Your task to perform on an android device: Add logitech g502 to the cart on bestbuy, then select checkout. Image 0: 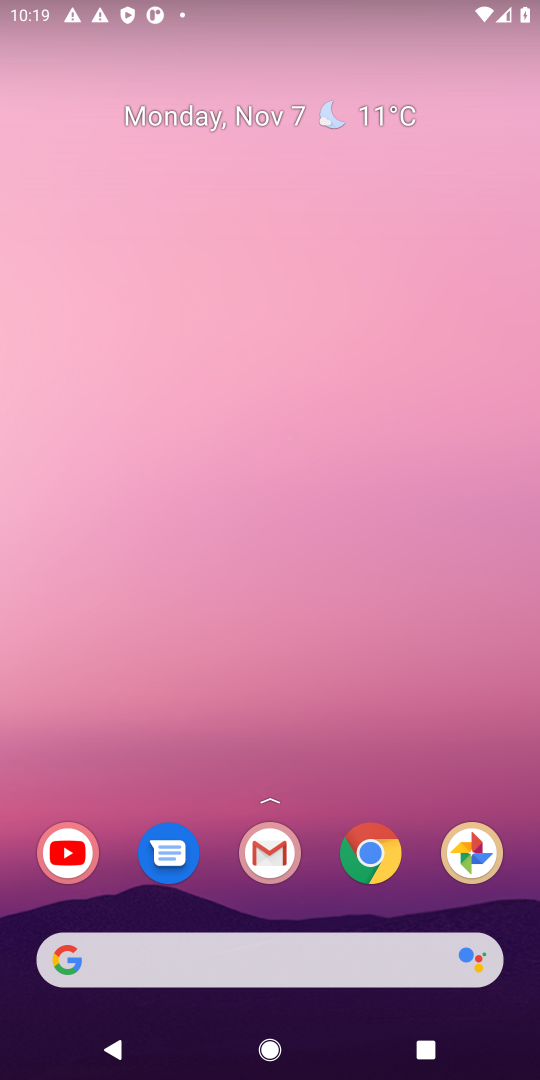
Step 0: click (308, 971)
Your task to perform on an android device: Add logitech g502 to the cart on bestbuy, then select checkout. Image 1: 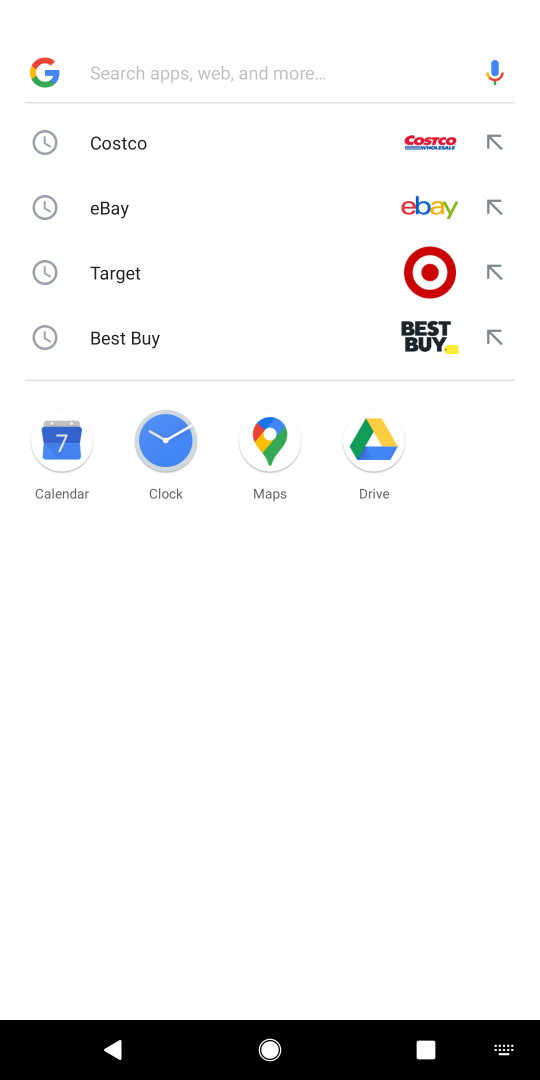
Step 1: click (165, 329)
Your task to perform on an android device: Add logitech g502 to the cart on bestbuy, then select checkout. Image 2: 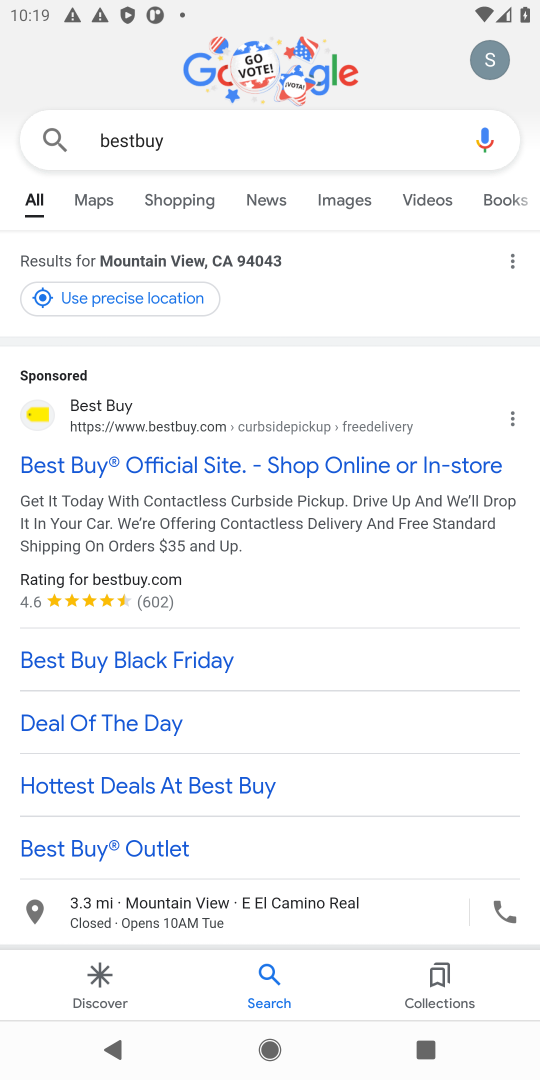
Step 2: click (110, 450)
Your task to perform on an android device: Add logitech g502 to the cart on bestbuy, then select checkout. Image 3: 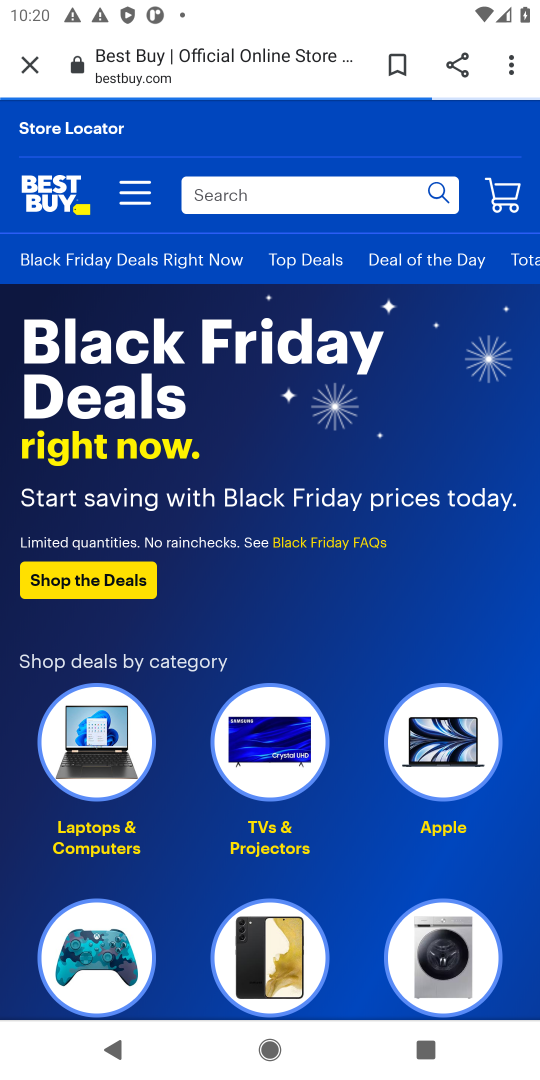
Step 3: click (245, 203)
Your task to perform on an android device: Add logitech g502 to the cart on bestbuy, then select checkout. Image 4: 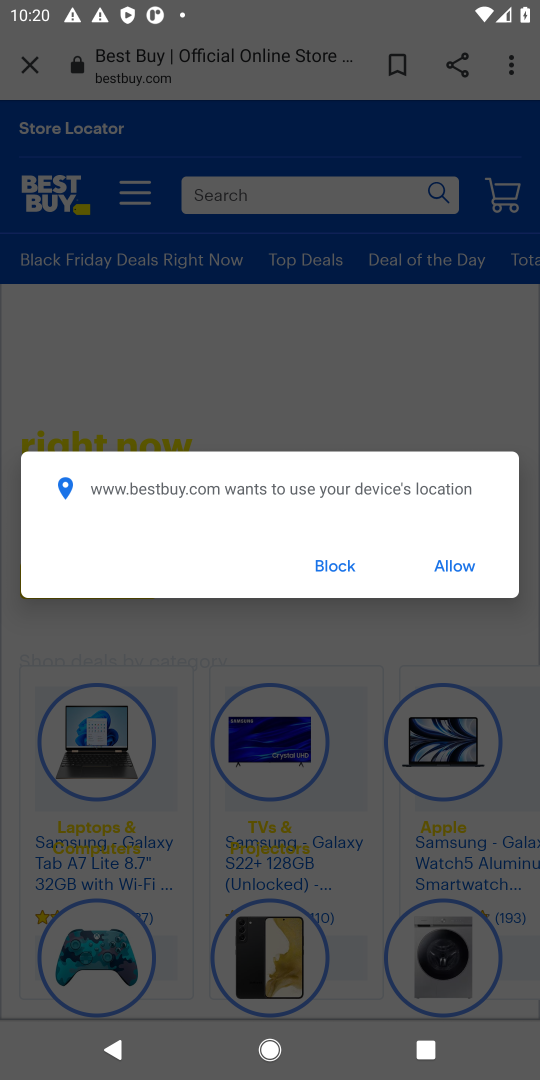
Step 4: type "logitech g502"
Your task to perform on an android device: Add logitech g502 to the cart on bestbuy, then select checkout. Image 5: 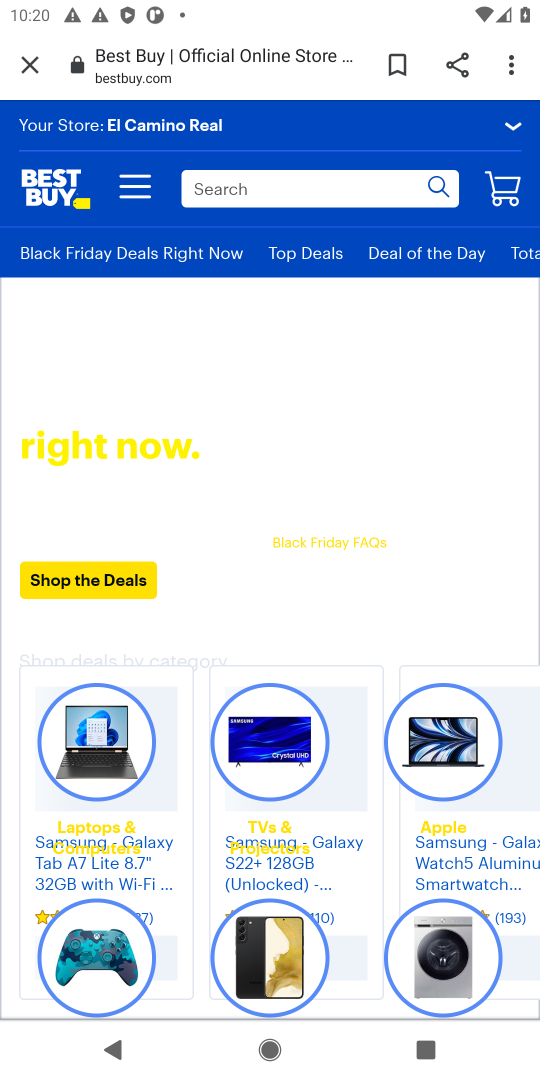
Step 5: click (280, 200)
Your task to perform on an android device: Add logitech g502 to the cart on bestbuy, then select checkout. Image 6: 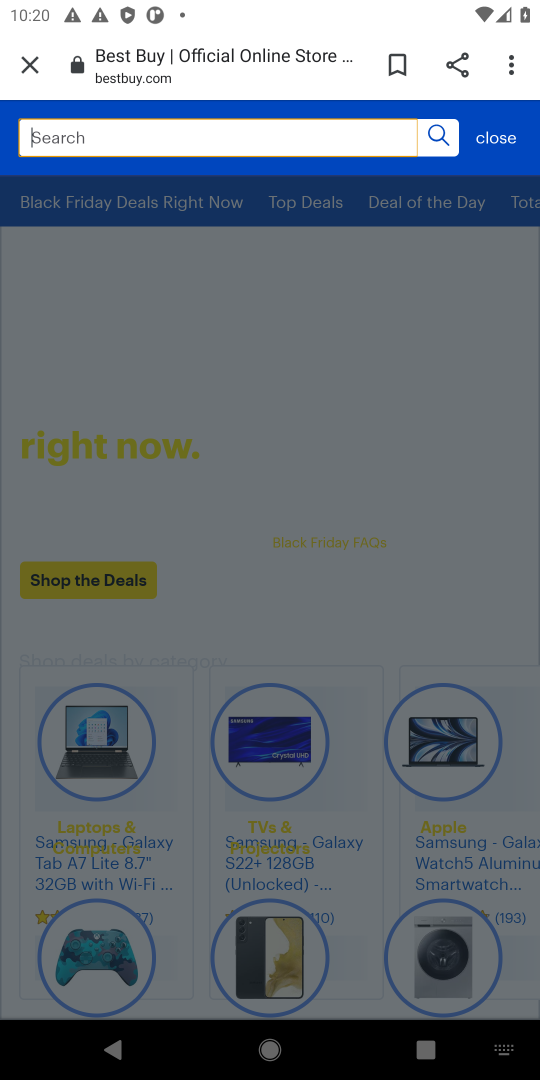
Step 6: task complete